Your task to perform on an android device: clear all cookies in the chrome app Image 0: 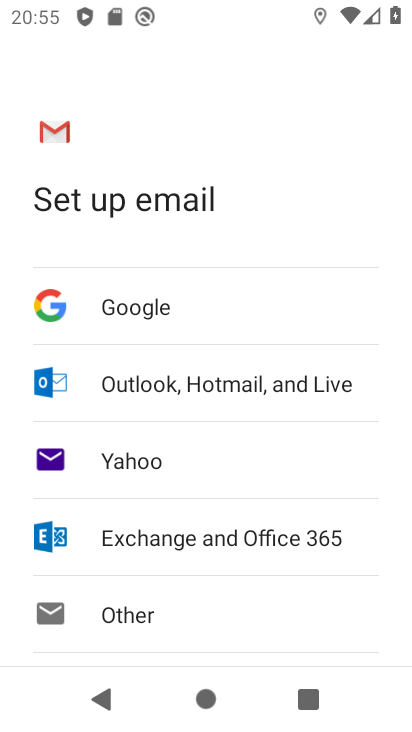
Step 0: press home button
Your task to perform on an android device: clear all cookies in the chrome app Image 1: 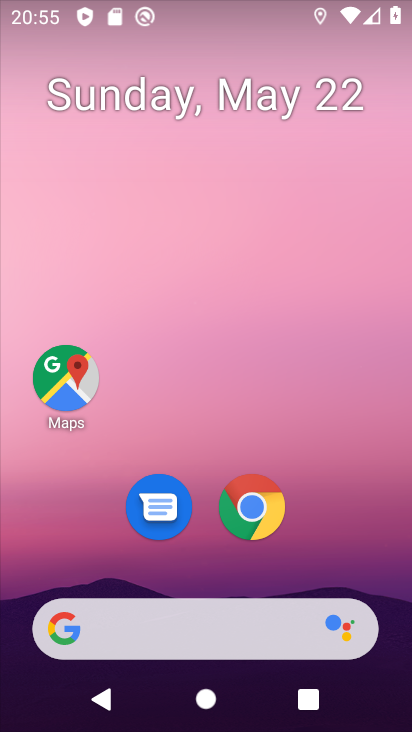
Step 1: click (248, 513)
Your task to perform on an android device: clear all cookies in the chrome app Image 2: 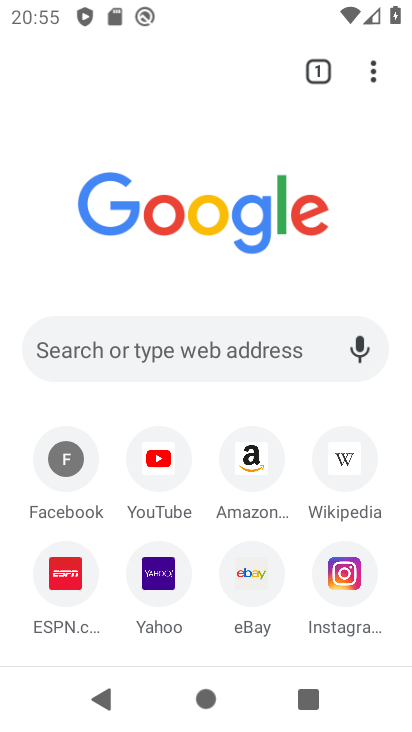
Step 2: click (364, 74)
Your task to perform on an android device: clear all cookies in the chrome app Image 3: 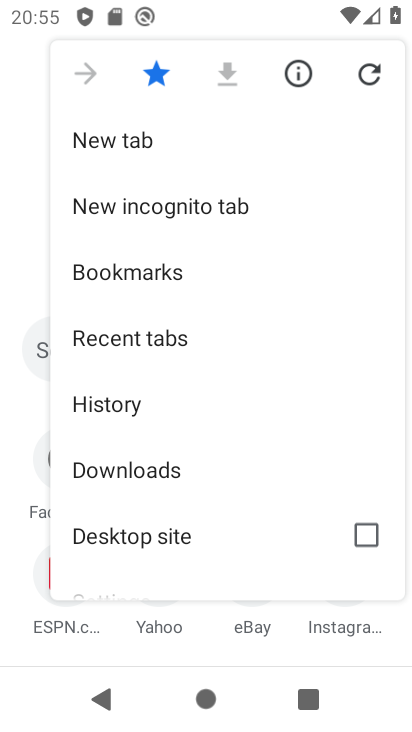
Step 3: click (116, 578)
Your task to perform on an android device: clear all cookies in the chrome app Image 4: 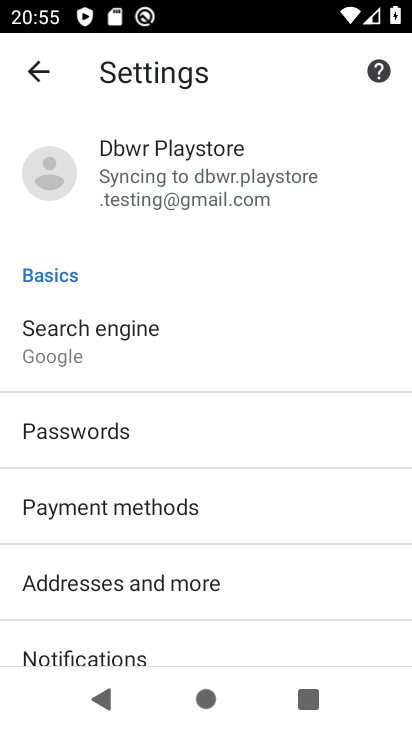
Step 4: drag from (216, 571) to (87, 221)
Your task to perform on an android device: clear all cookies in the chrome app Image 5: 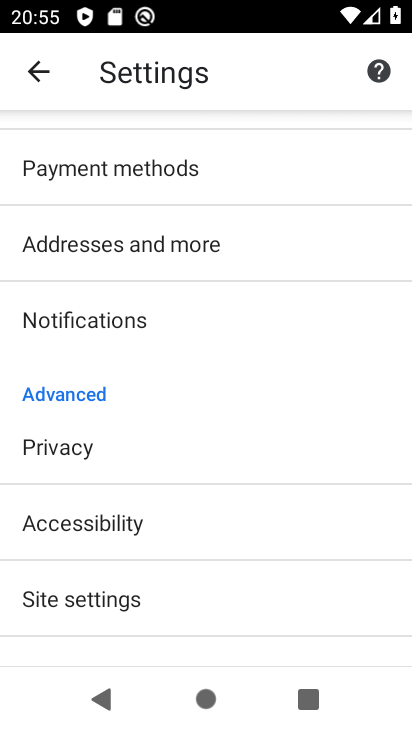
Step 5: click (44, 447)
Your task to perform on an android device: clear all cookies in the chrome app Image 6: 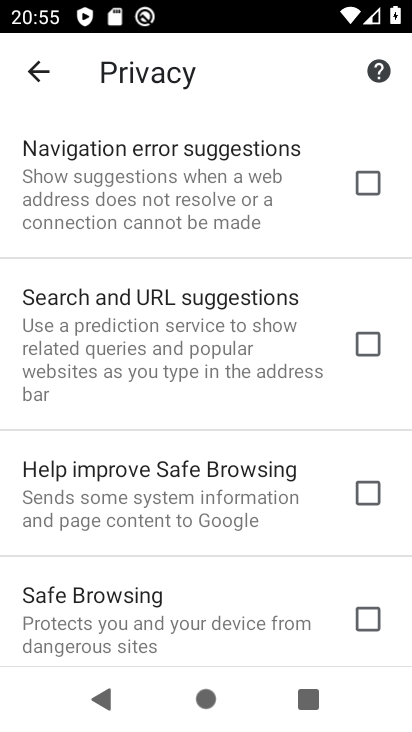
Step 6: drag from (235, 483) to (154, 148)
Your task to perform on an android device: clear all cookies in the chrome app Image 7: 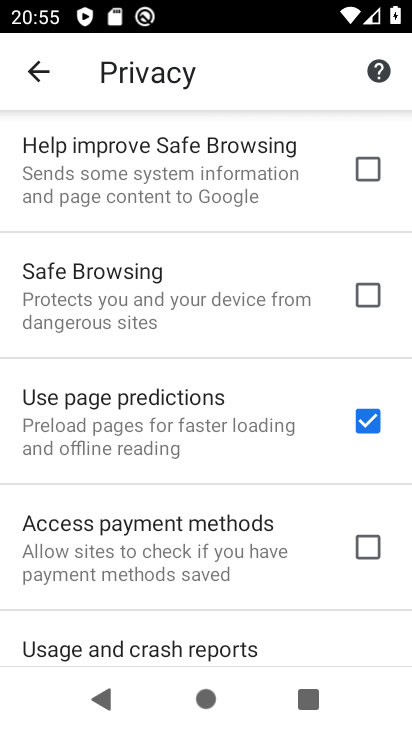
Step 7: drag from (195, 642) to (101, 246)
Your task to perform on an android device: clear all cookies in the chrome app Image 8: 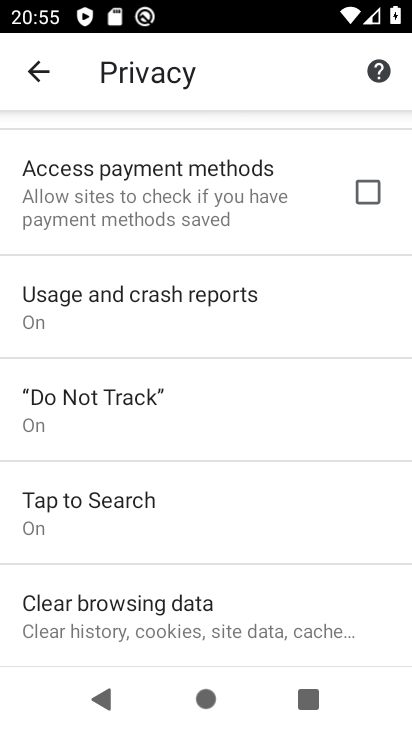
Step 8: click (140, 598)
Your task to perform on an android device: clear all cookies in the chrome app Image 9: 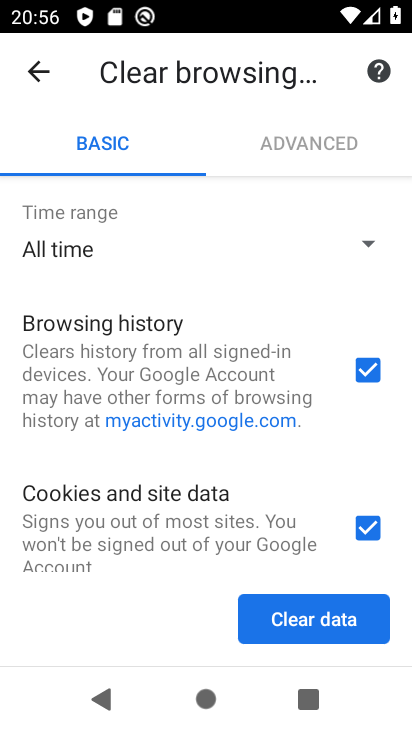
Step 9: click (269, 609)
Your task to perform on an android device: clear all cookies in the chrome app Image 10: 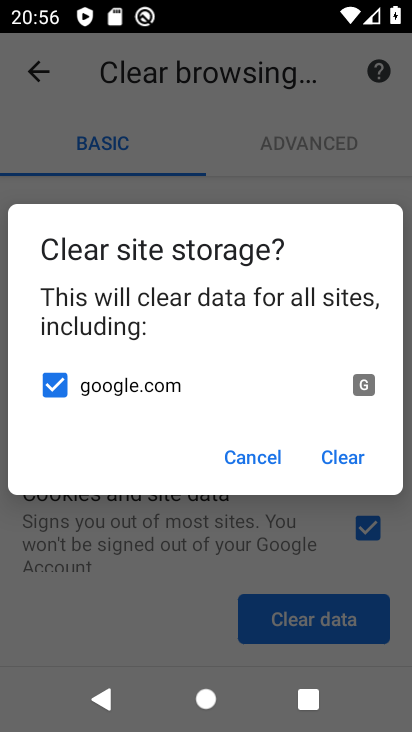
Step 10: click (332, 459)
Your task to perform on an android device: clear all cookies in the chrome app Image 11: 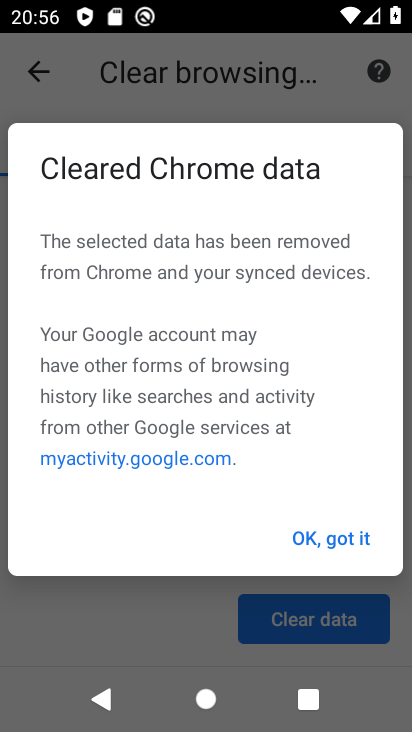
Step 11: click (344, 553)
Your task to perform on an android device: clear all cookies in the chrome app Image 12: 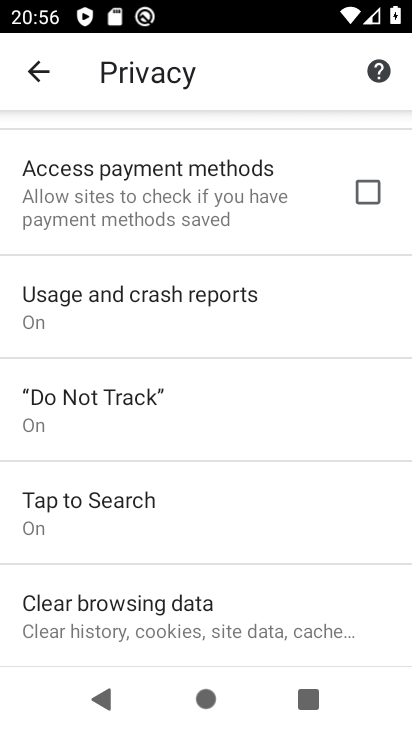
Step 12: task complete